Your task to perform on an android device: Go to privacy settings Image 0: 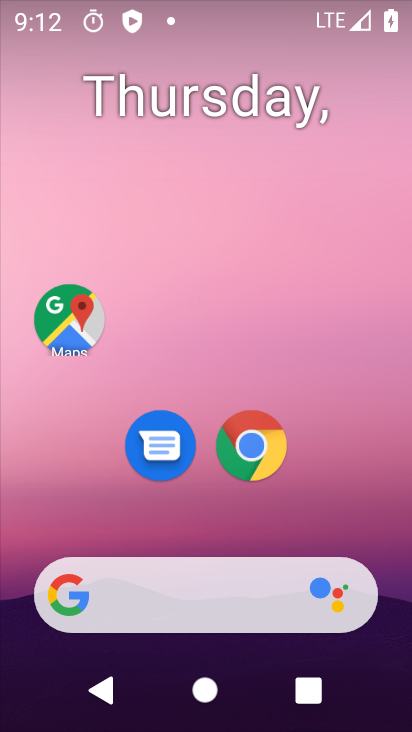
Step 0: drag from (371, 512) to (367, 1)
Your task to perform on an android device: Go to privacy settings Image 1: 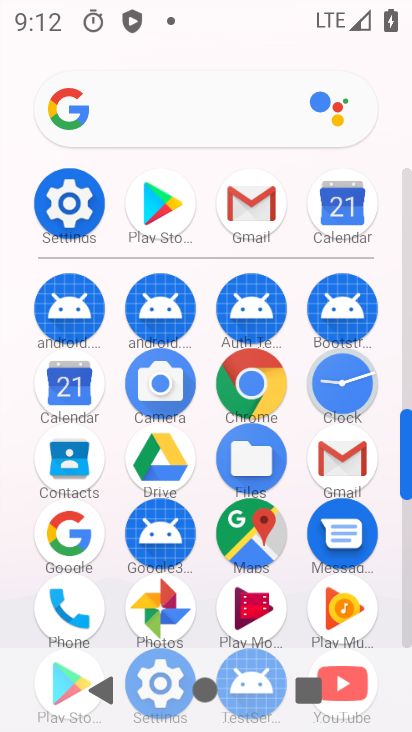
Step 1: click (74, 202)
Your task to perform on an android device: Go to privacy settings Image 2: 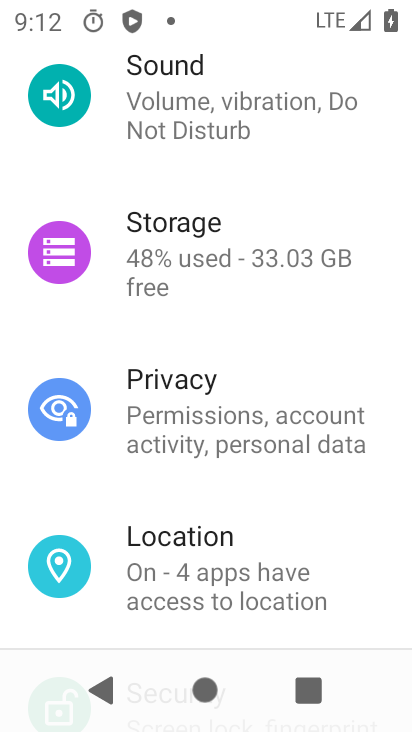
Step 2: click (186, 419)
Your task to perform on an android device: Go to privacy settings Image 3: 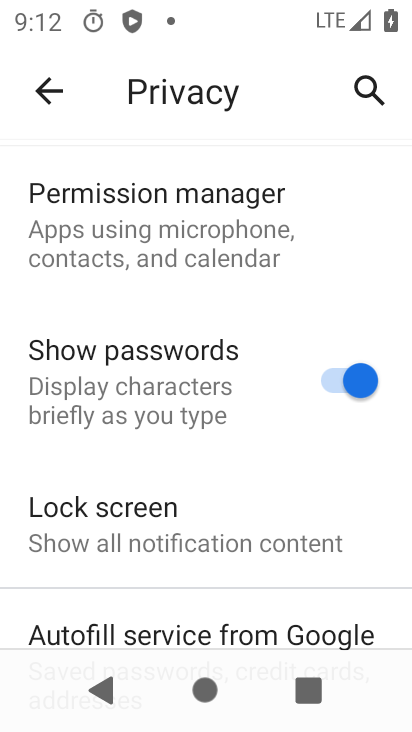
Step 3: task complete